Your task to perform on an android device: allow notifications from all sites in the chrome app Image 0: 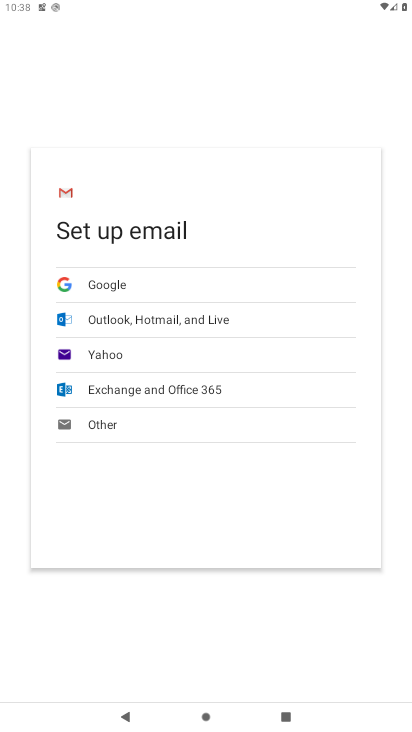
Step 0: press home button
Your task to perform on an android device: allow notifications from all sites in the chrome app Image 1: 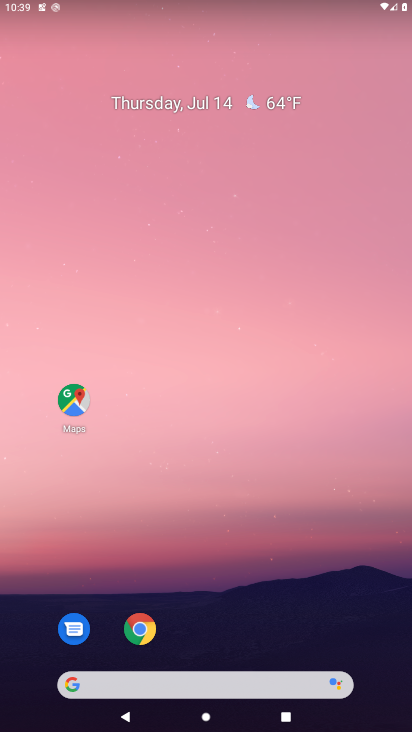
Step 1: drag from (181, 667) to (180, 405)
Your task to perform on an android device: allow notifications from all sites in the chrome app Image 2: 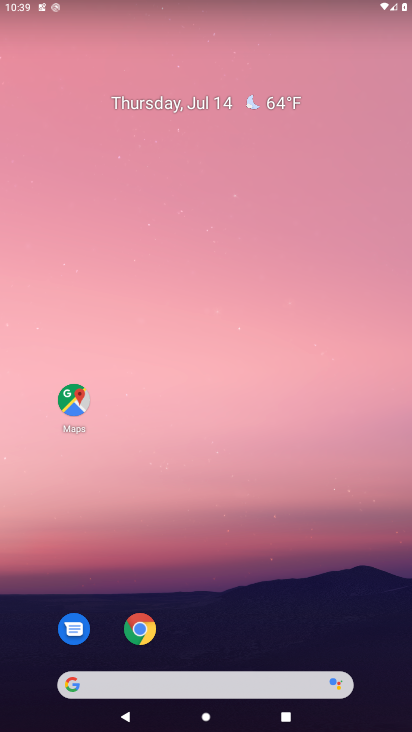
Step 2: drag from (210, 641) to (172, 203)
Your task to perform on an android device: allow notifications from all sites in the chrome app Image 3: 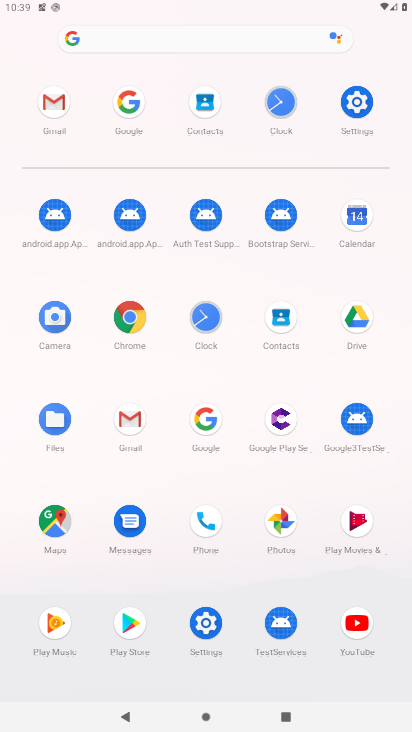
Step 3: click (136, 320)
Your task to perform on an android device: allow notifications from all sites in the chrome app Image 4: 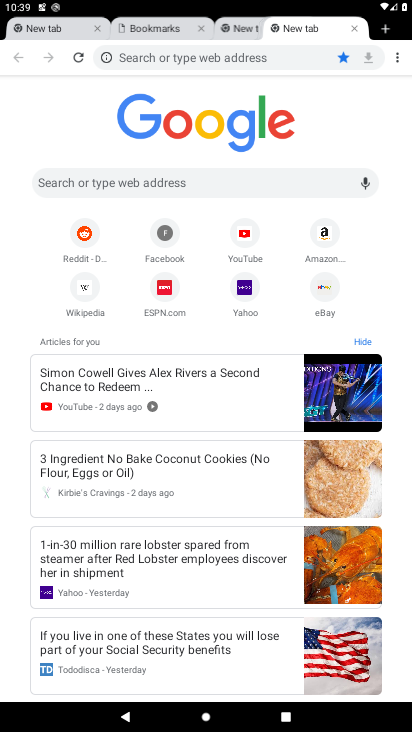
Step 4: click (398, 60)
Your task to perform on an android device: allow notifications from all sites in the chrome app Image 5: 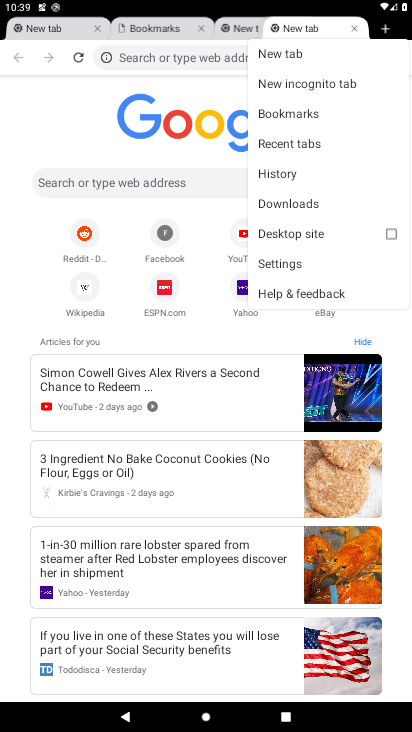
Step 5: click (280, 262)
Your task to perform on an android device: allow notifications from all sites in the chrome app Image 6: 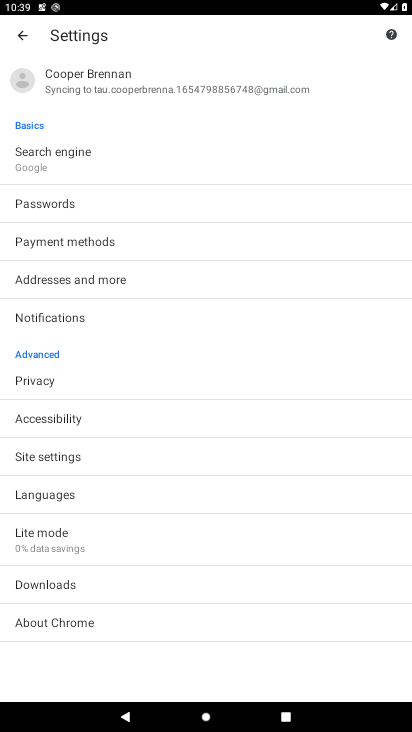
Step 6: click (33, 452)
Your task to perform on an android device: allow notifications from all sites in the chrome app Image 7: 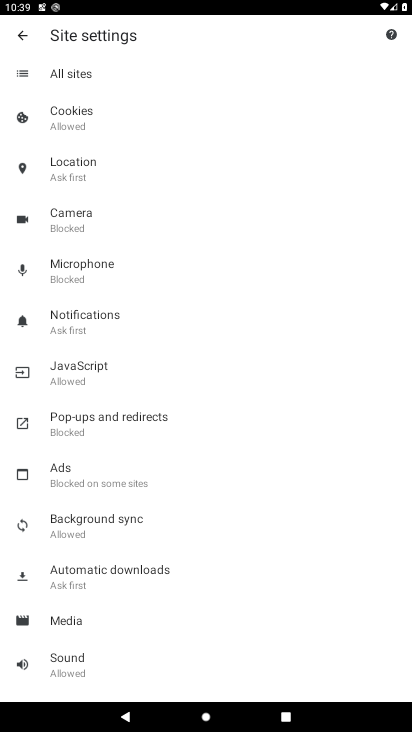
Step 7: click (76, 109)
Your task to perform on an android device: allow notifications from all sites in the chrome app Image 8: 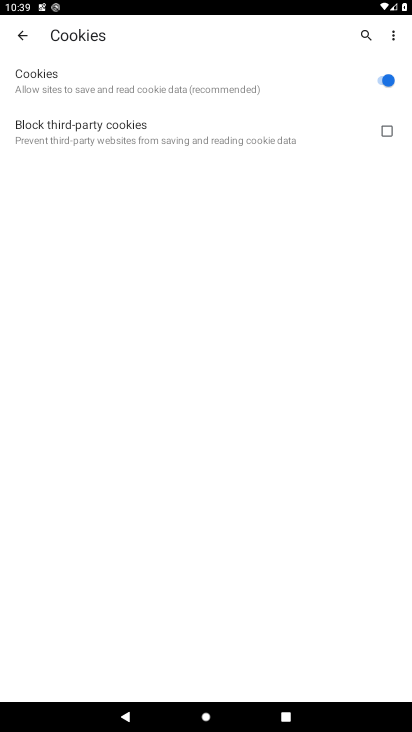
Step 8: task complete